Your task to perform on an android device: turn off notifications in google photos Image 0: 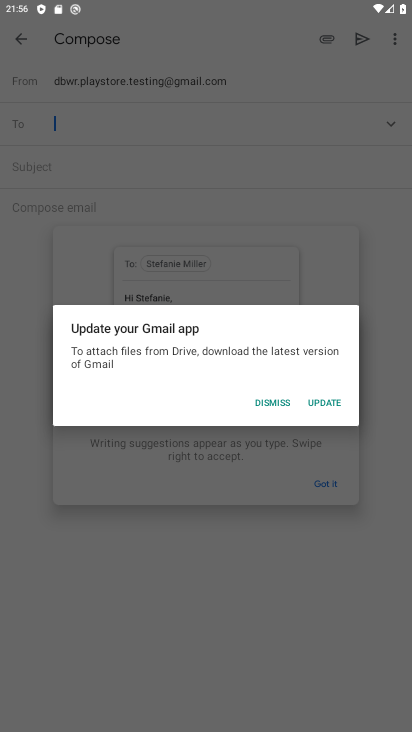
Step 0: press home button
Your task to perform on an android device: turn off notifications in google photos Image 1: 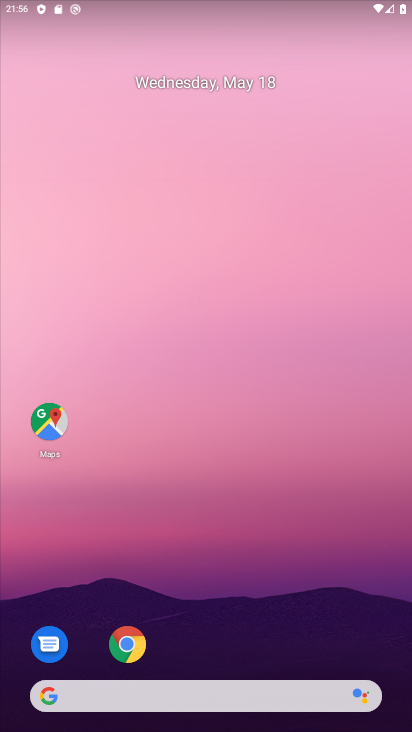
Step 1: drag from (240, 639) to (256, 160)
Your task to perform on an android device: turn off notifications in google photos Image 2: 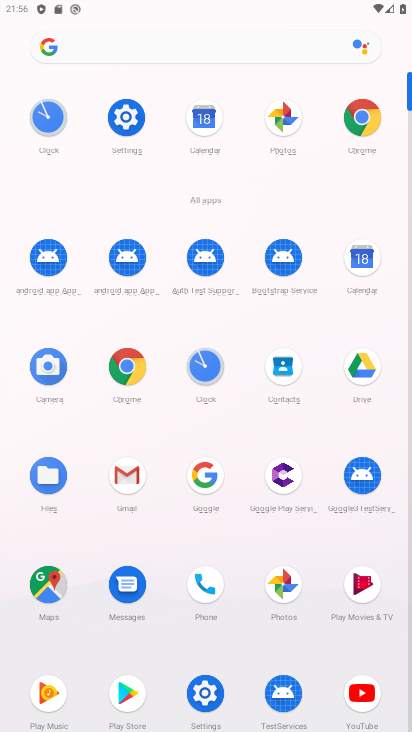
Step 2: click (283, 576)
Your task to perform on an android device: turn off notifications in google photos Image 3: 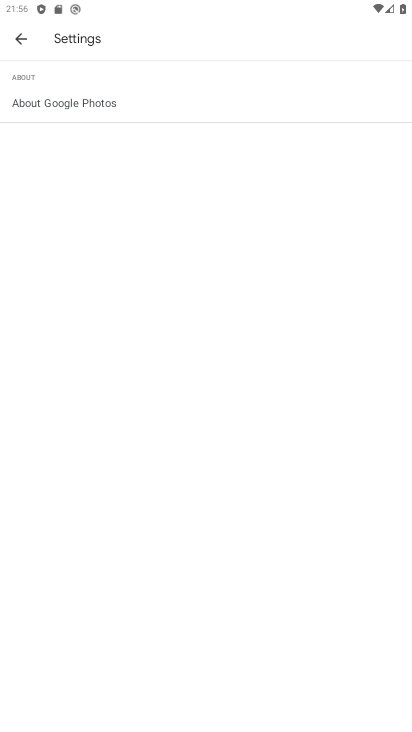
Step 3: click (21, 34)
Your task to perform on an android device: turn off notifications in google photos Image 4: 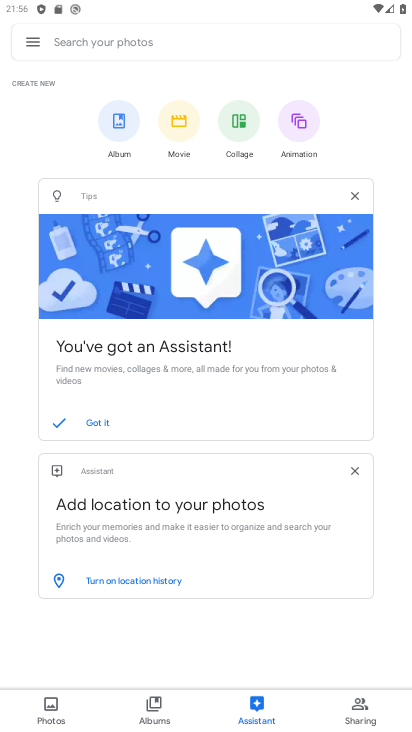
Step 4: click (50, 39)
Your task to perform on an android device: turn off notifications in google photos Image 5: 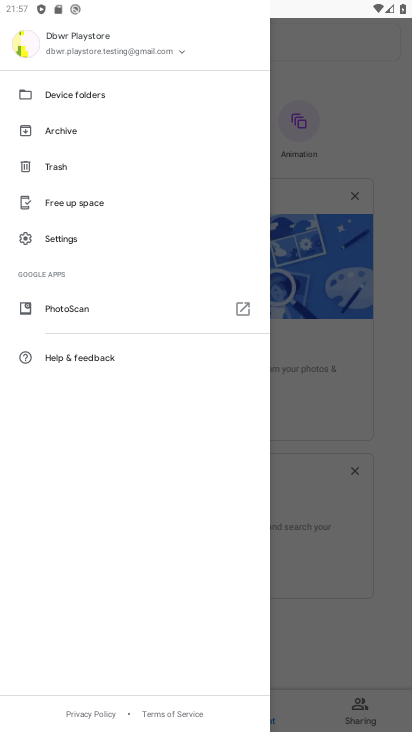
Step 5: click (67, 244)
Your task to perform on an android device: turn off notifications in google photos Image 6: 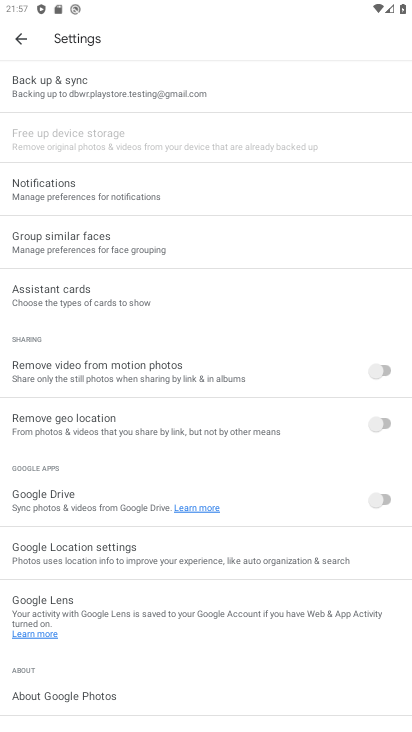
Step 6: click (99, 195)
Your task to perform on an android device: turn off notifications in google photos Image 7: 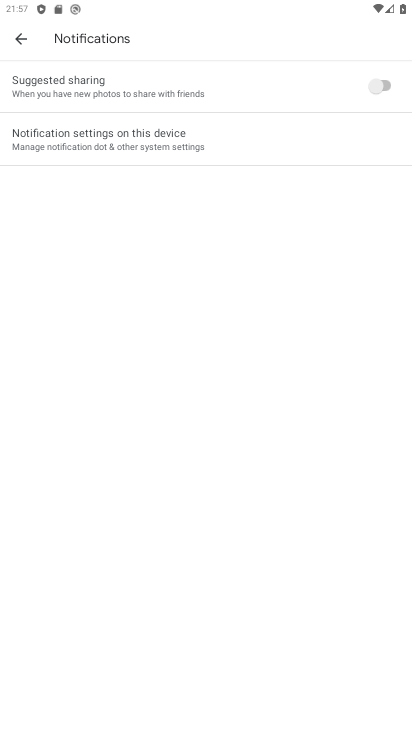
Step 7: click (114, 147)
Your task to perform on an android device: turn off notifications in google photos Image 8: 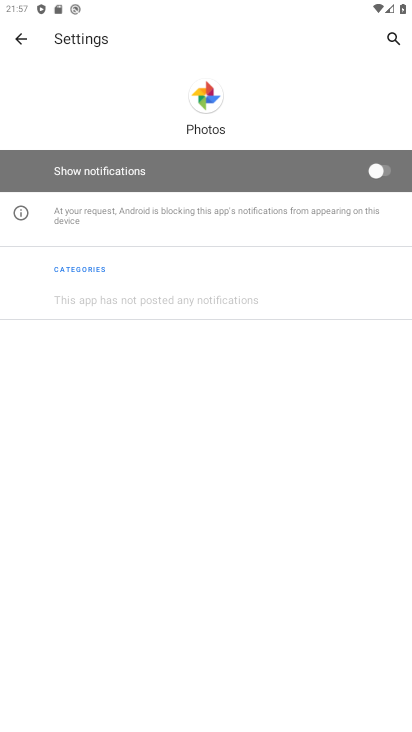
Step 8: task complete